Your task to perform on an android device: Open the Play Movies app and select the watchlist tab. Image 0: 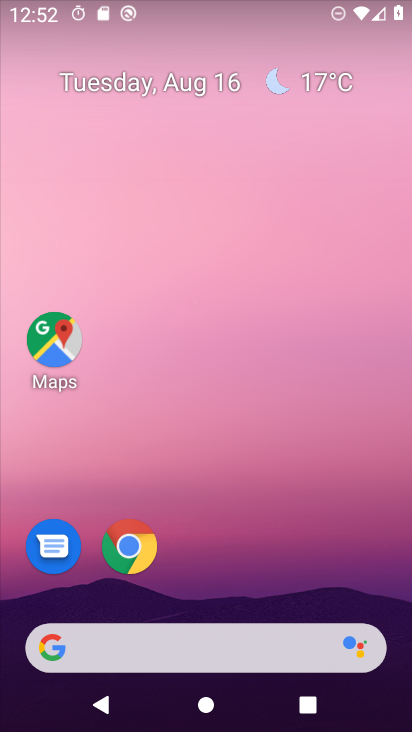
Step 0: drag from (203, 535) to (205, 76)
Your task to perform on an android device: Open the Play Movies app and select the watchlist tab. Image 1: 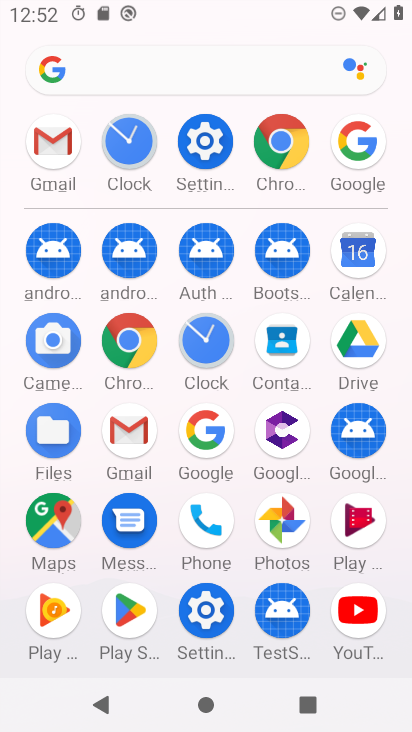
Step 1: click (362, 523)
Your task to perform on an android device: Open the Play Movies app and select the watchlist tab. Image 2: 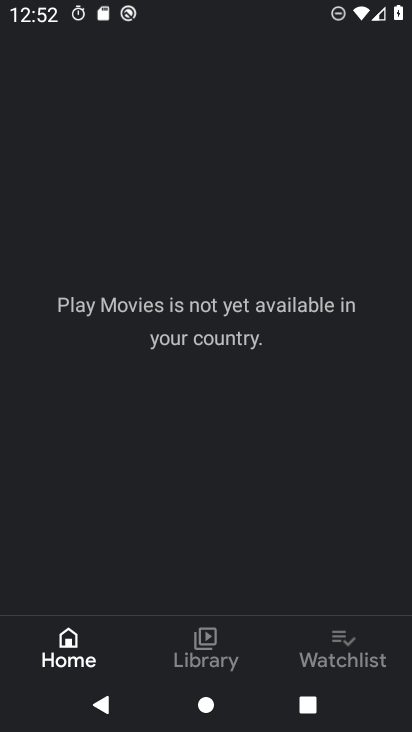
Step 2: click (349, 645)
Your task to perform on an android device: Open the Play Movies app and select the watchlist tab. Image 3: 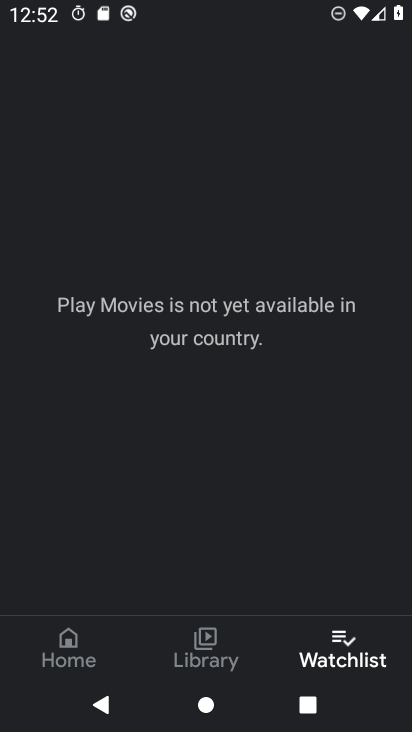
Step 3: task complete